Your task to perform on an android device: What's the latest video from GameTrailers? Image 0: 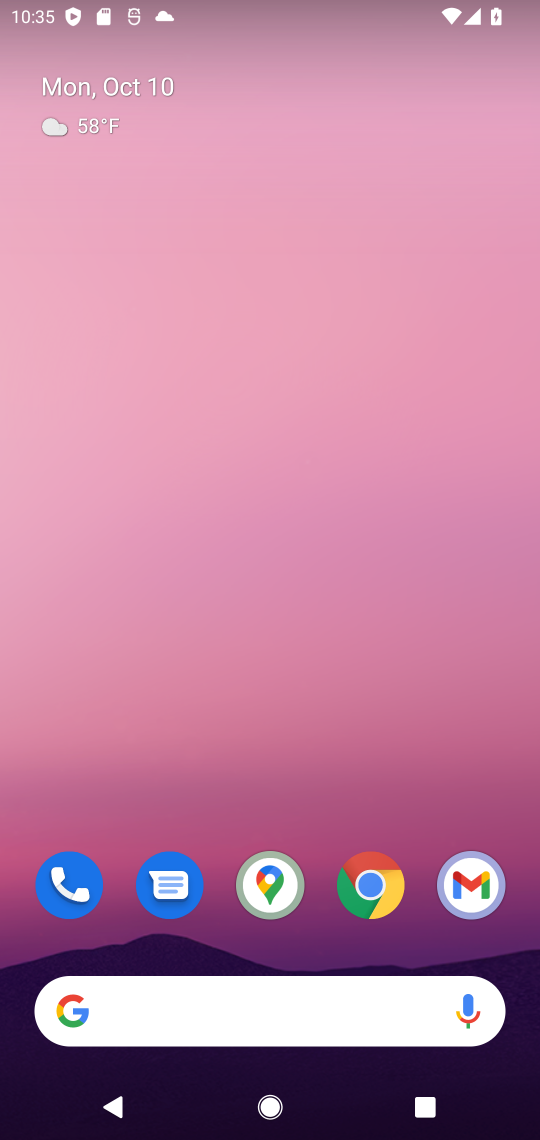
Step 0: drag from (253, 819) to (242, 278)
Your task to perform on an android device: What's the latest video from GameTrailers? Image 1: 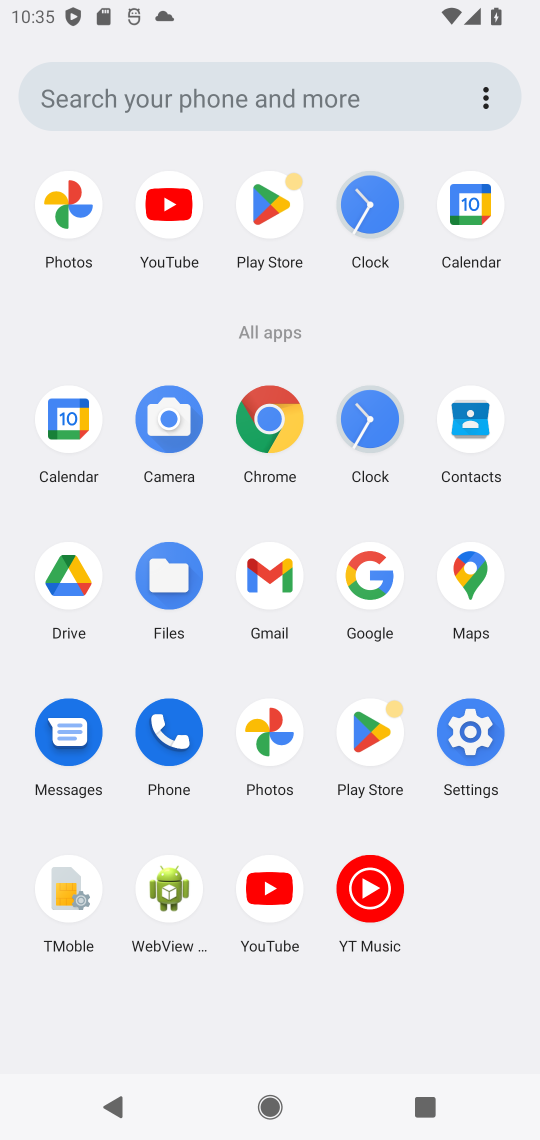
Step 1: click (172, 205)
Your task to perform on an android device: What's the latest video from GameTrailers? Image 2: 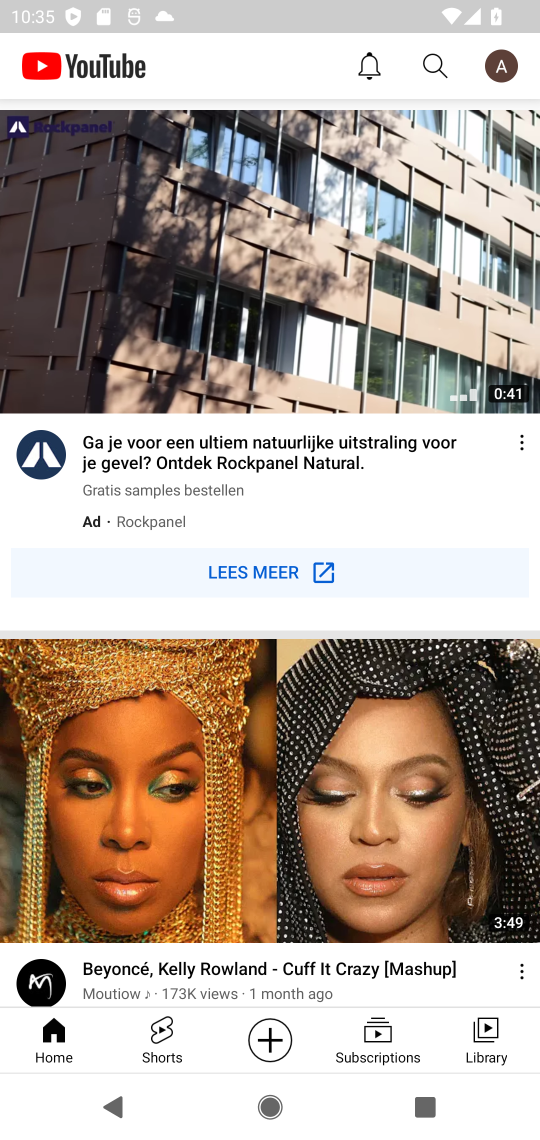
Step 2: click (440, 71)
Your task to perform on an android device: What's the latest video from GameTrailers? Image 3: 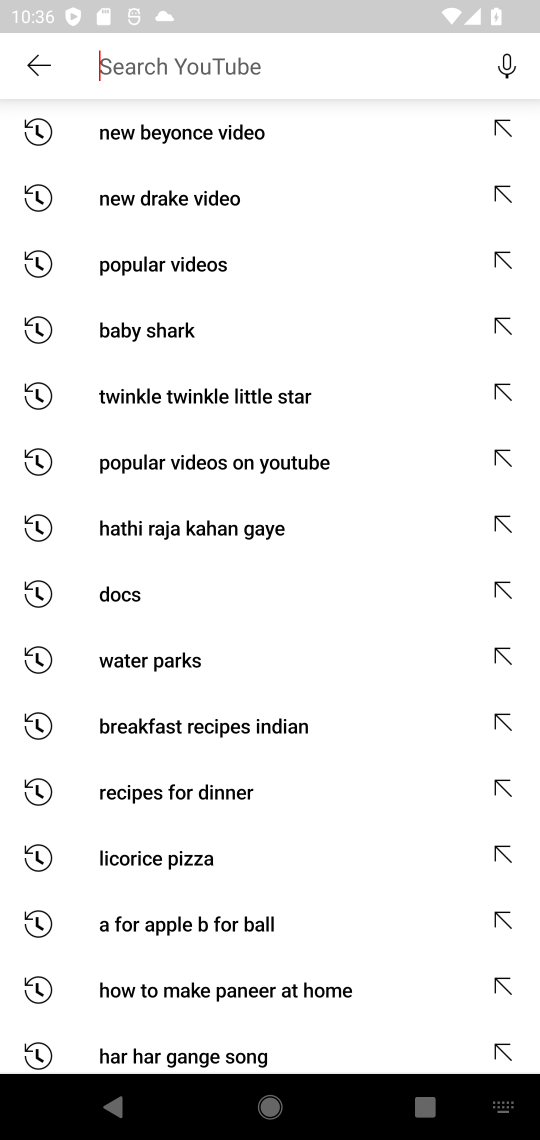
Step 3: type "gametrailers"
Your task to perform on an android device: What's the latest video from GameTrailers? Image 4: 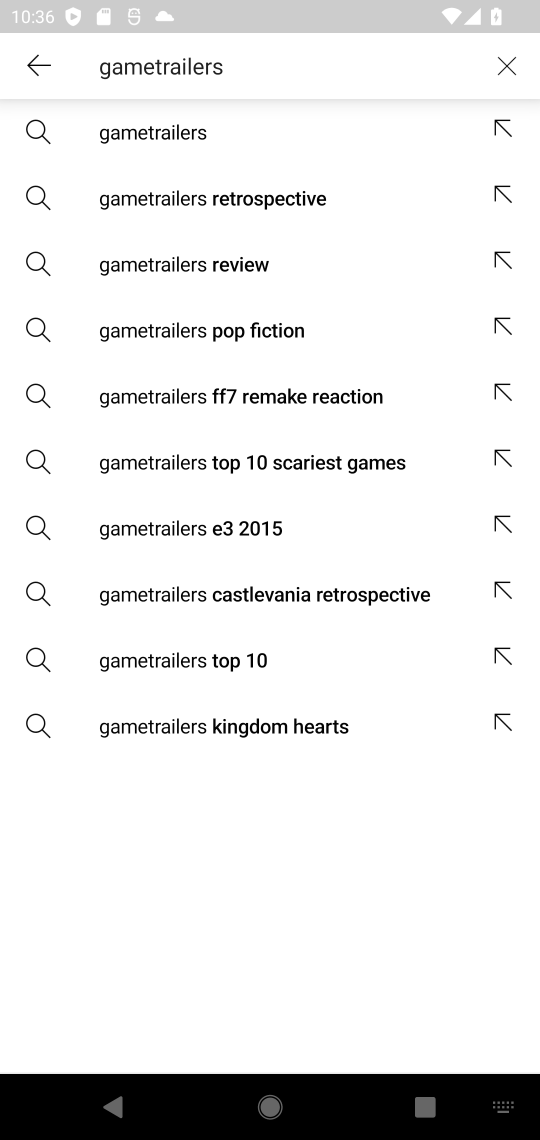
Step 4: click (230, 126)
Your task to perform on an android device: What's the latest video from GameTrailers? Image 5: 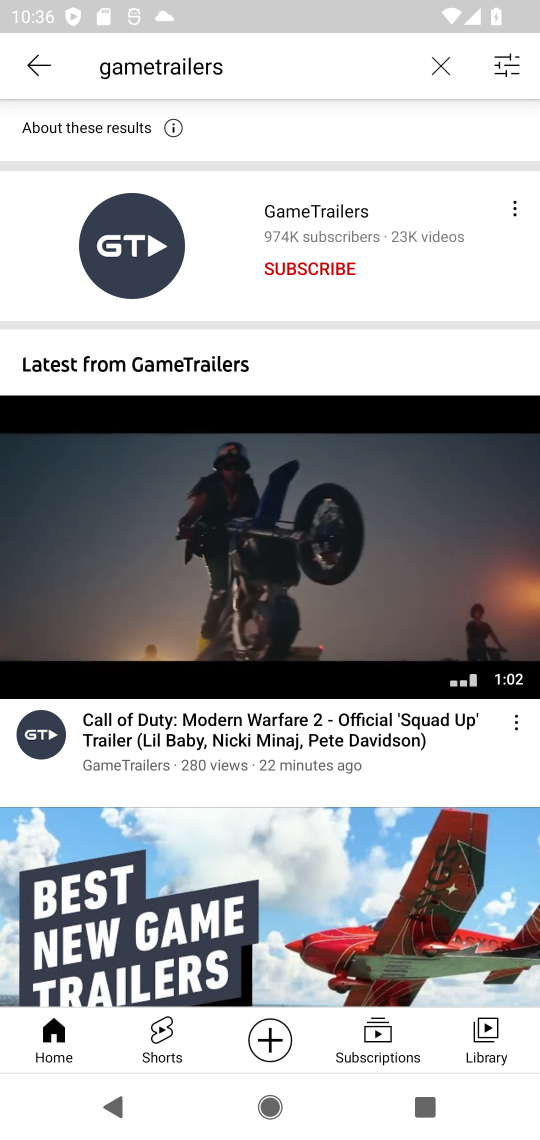
Step 5: click (340, 219)
Your task to perform on an android device: What's the latest video from GameTrailers? Image 6: 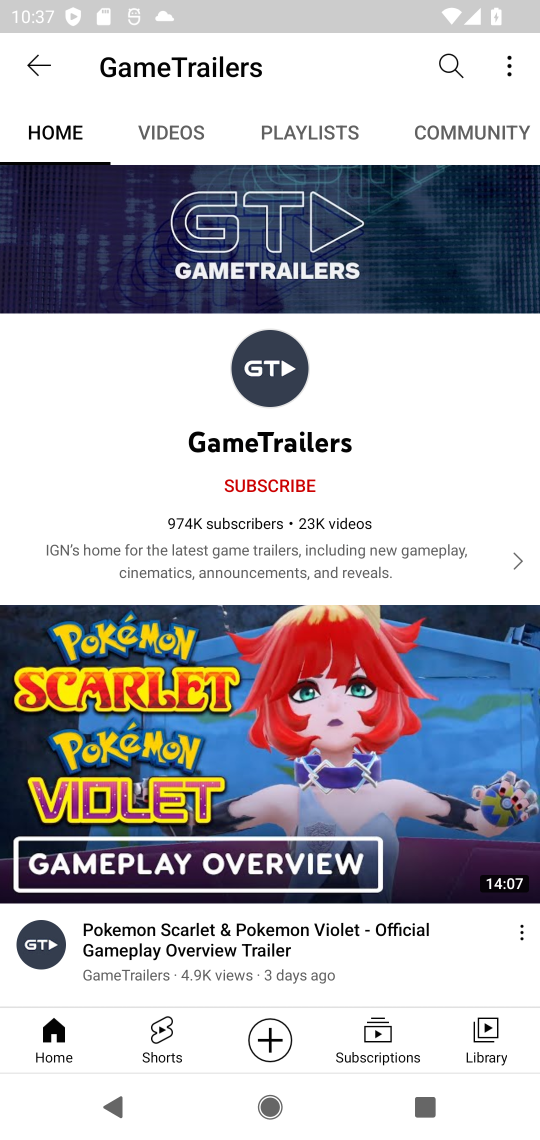
Step 6: click (190, 134)
Your task to perform on an android device: What's the latest video from GameTrailers? Image 7: 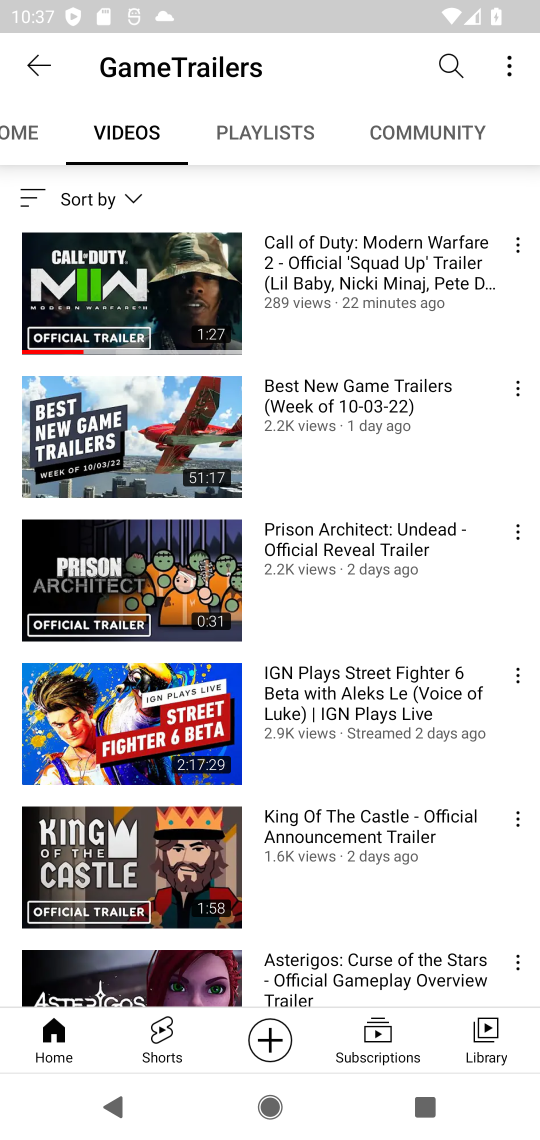
Step 7: task complete